Your task to perform on an android device: uninstall "Roku - Official Remote Control" Image 0: 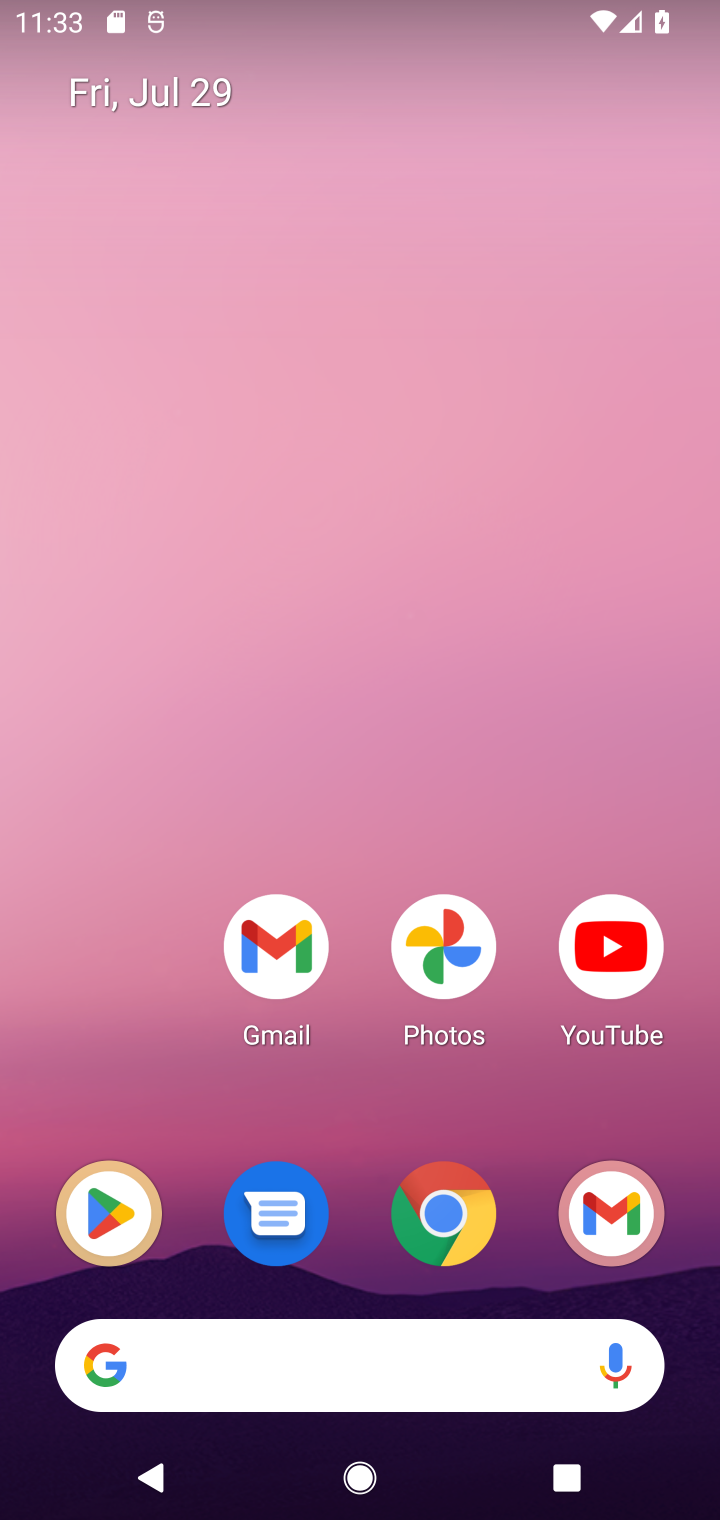
Step 0: press home button
Your task to perform on an android device: uninstall "Roku - Official Remote Control" Image 1: 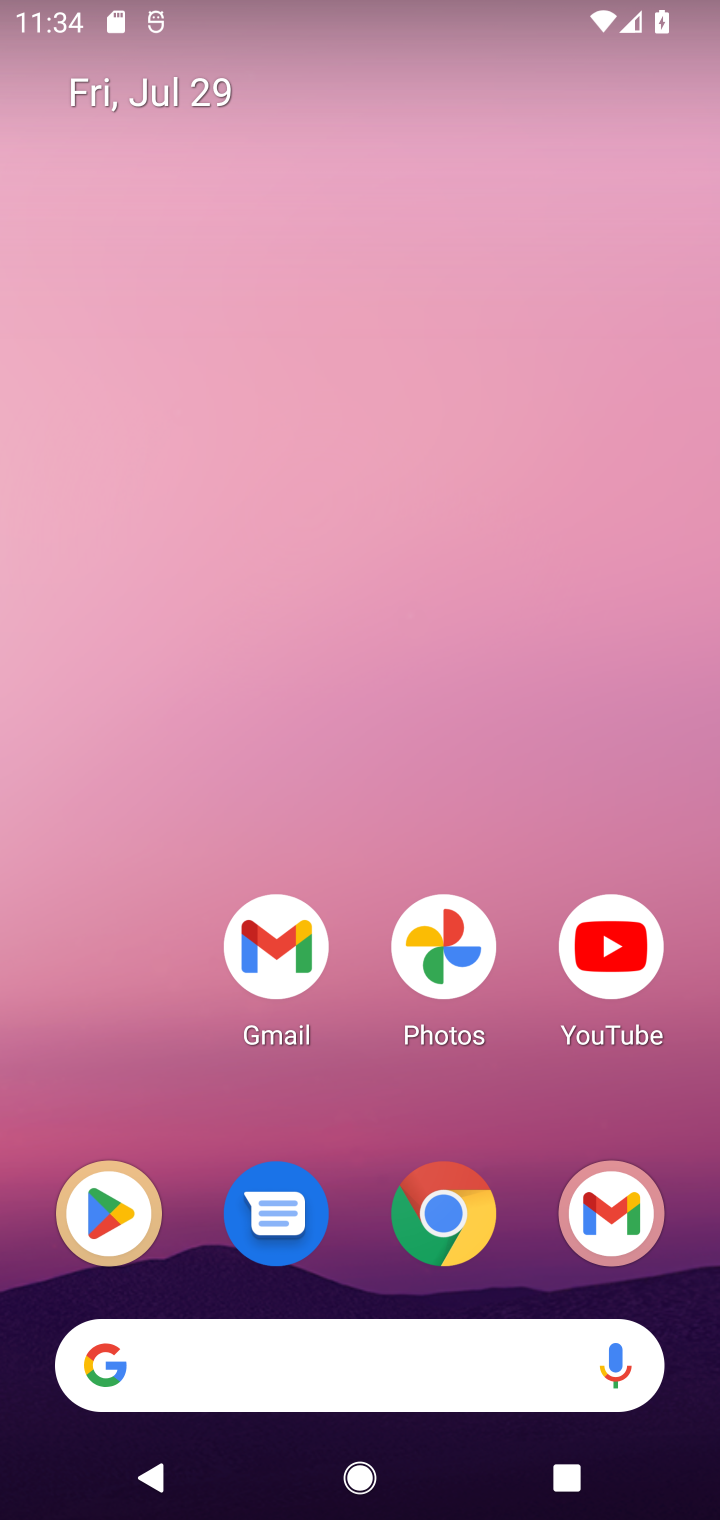
Step 1: drag from (291, 1342) to (286, 145)
Your task to perform on an android device: uninstall "Roku - Official Remote Control" Image 2: 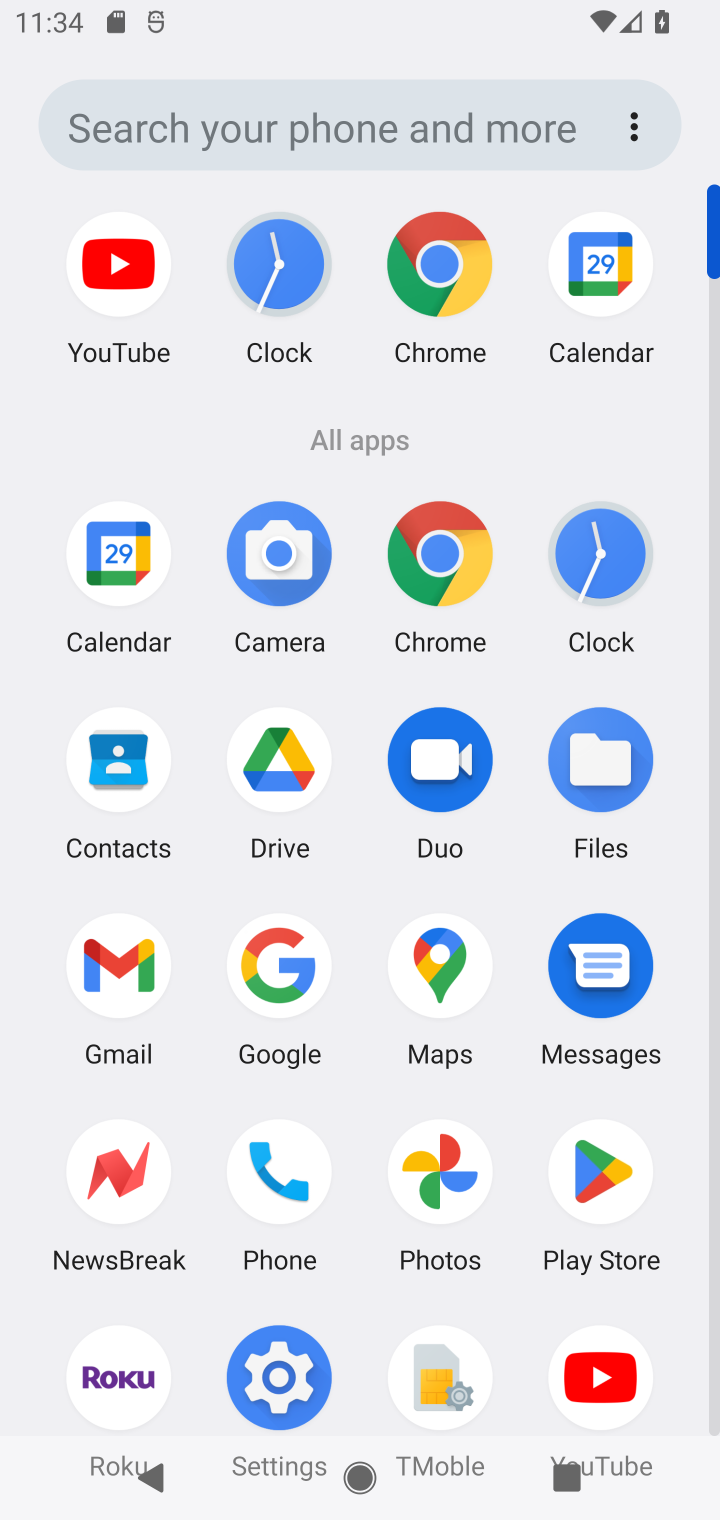
Step 2: click (616, 1147)
Your task to perform on an android device: uninstall "Roku - Official Remote Control" Image 3: 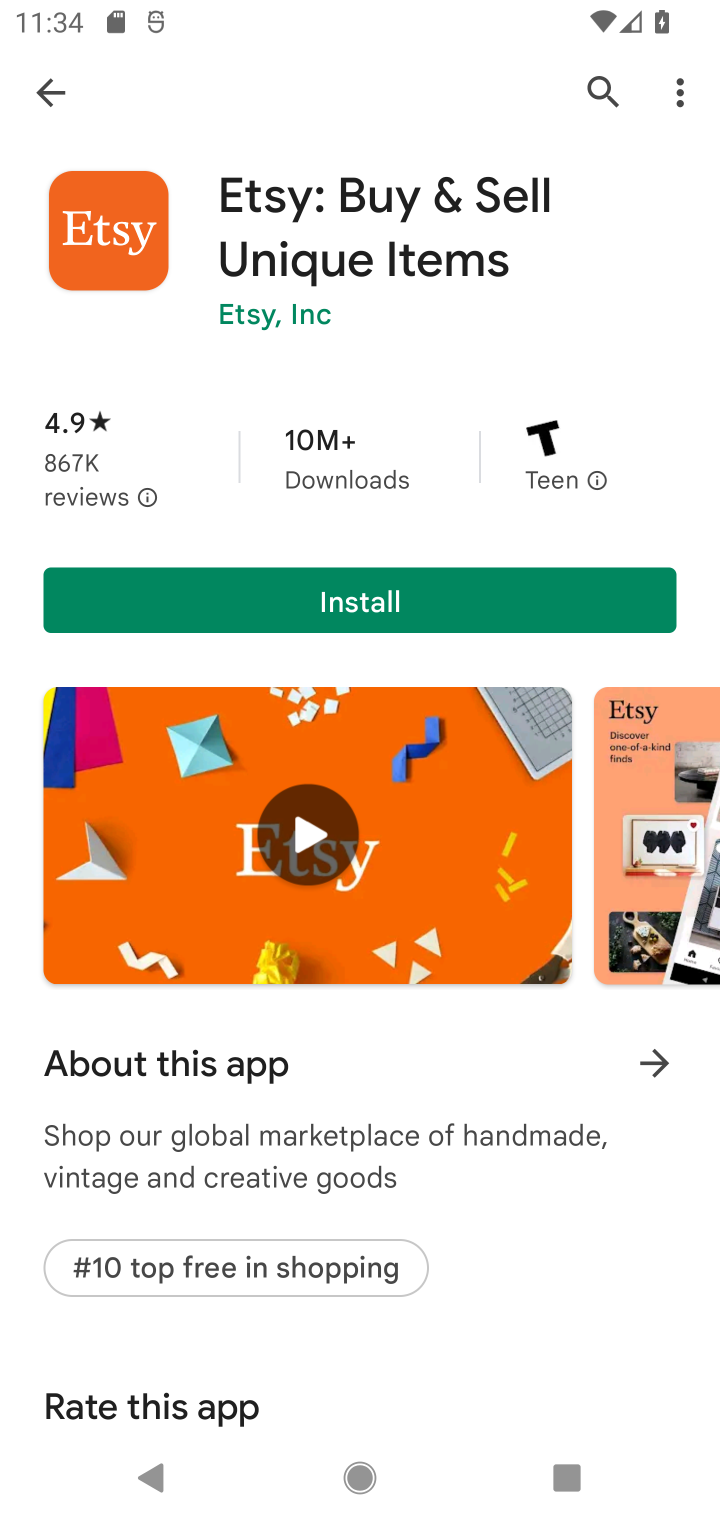
Step 3: click (600, 87)
Your task to perform on an android device: uninstall "Roku - Official Remote Control" Image 4: 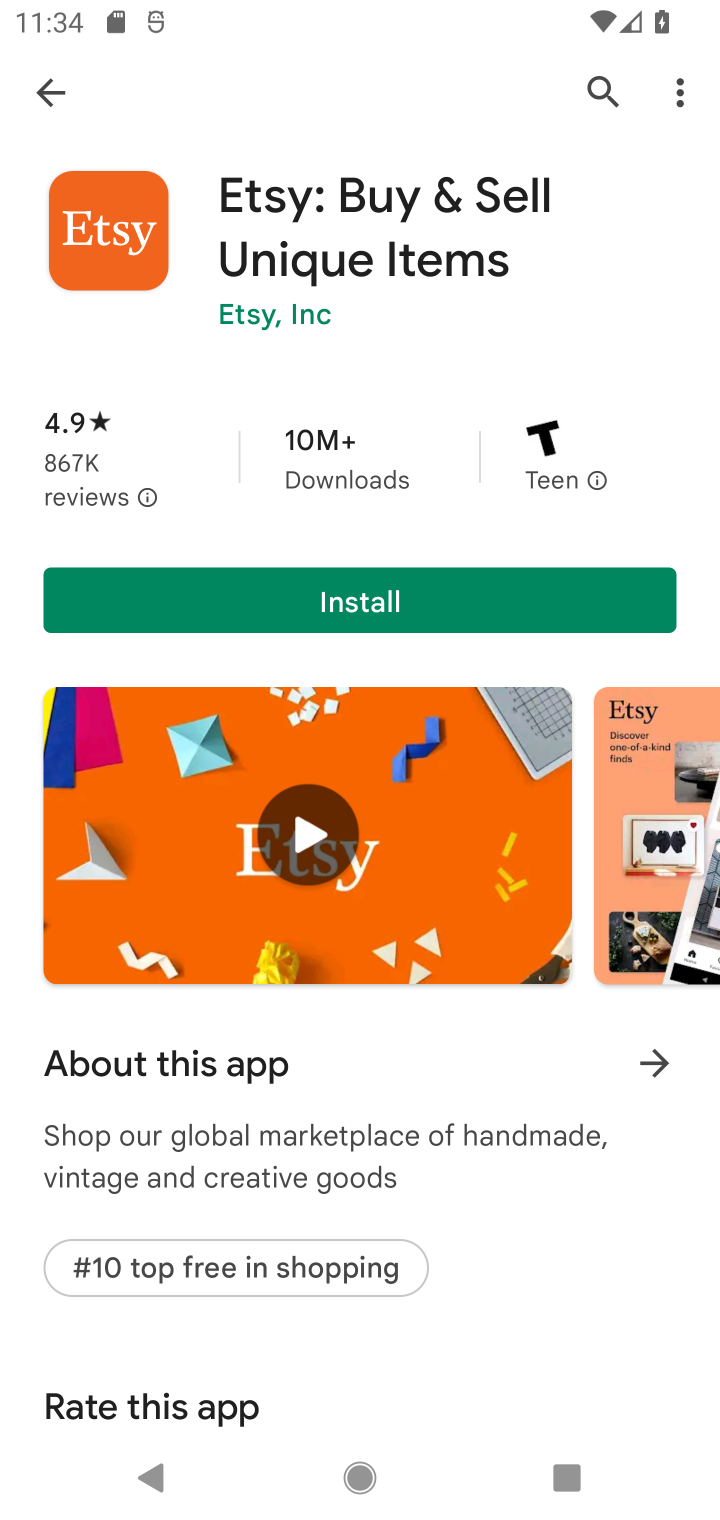
Step 4: click (594, 77)
Your task to perform on an android device: uninstall "Roku - Official Remote Control" Image 5: 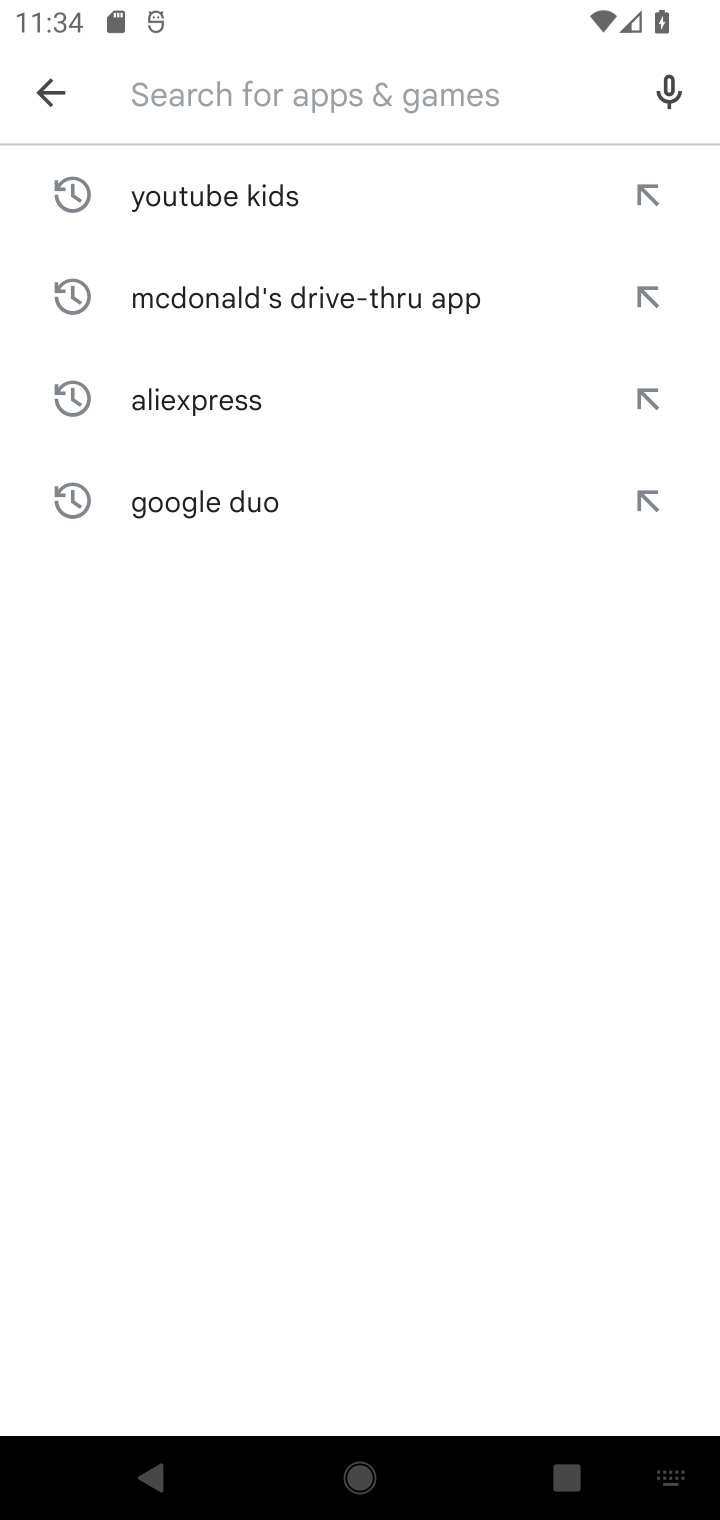
Step 5: type "Roku - Official Remote Control"
Your task to perform on an android device: uninstall "Roku - Official Remote Control" Image 6: 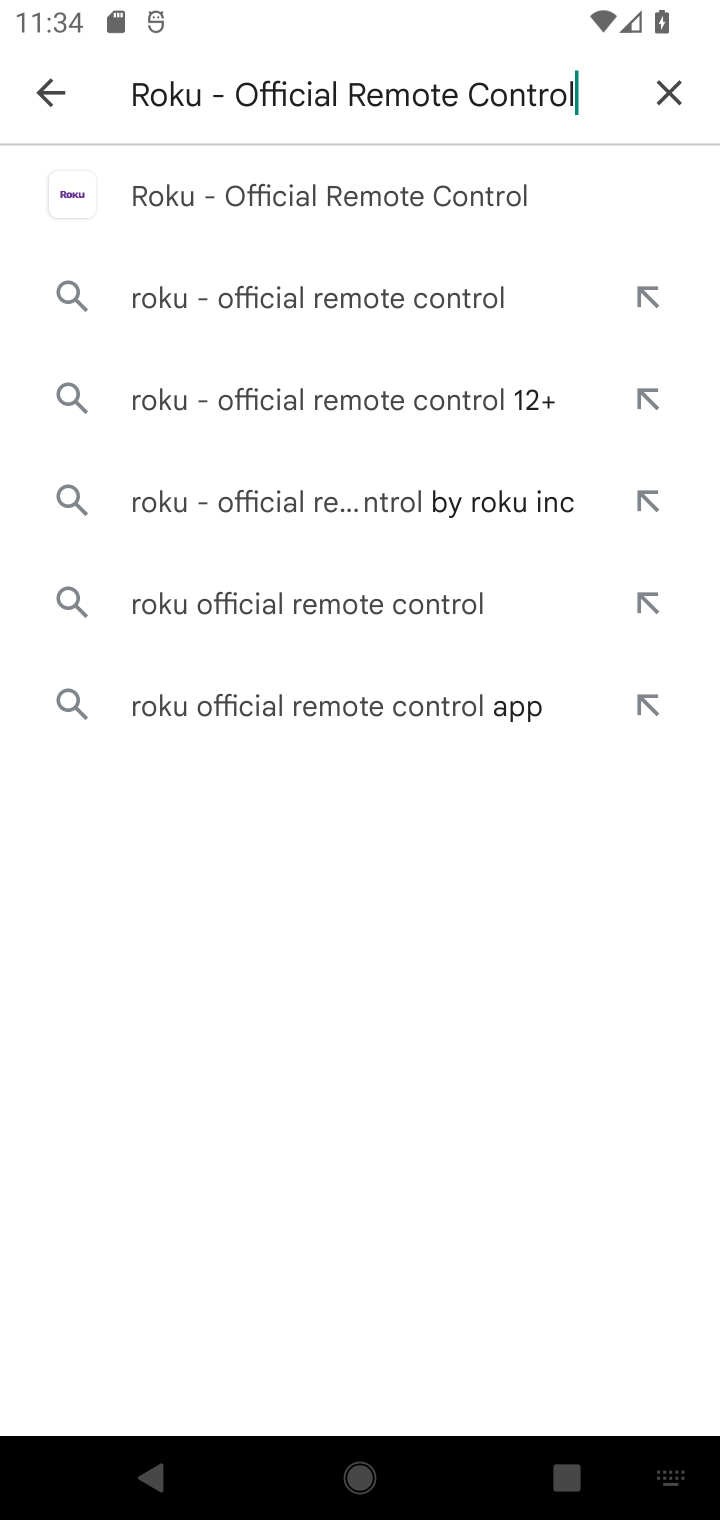
Step 6: click (310, 190)
Your task to perform on an android device: uninstall "Roku - Official Remote Control" Image 7: 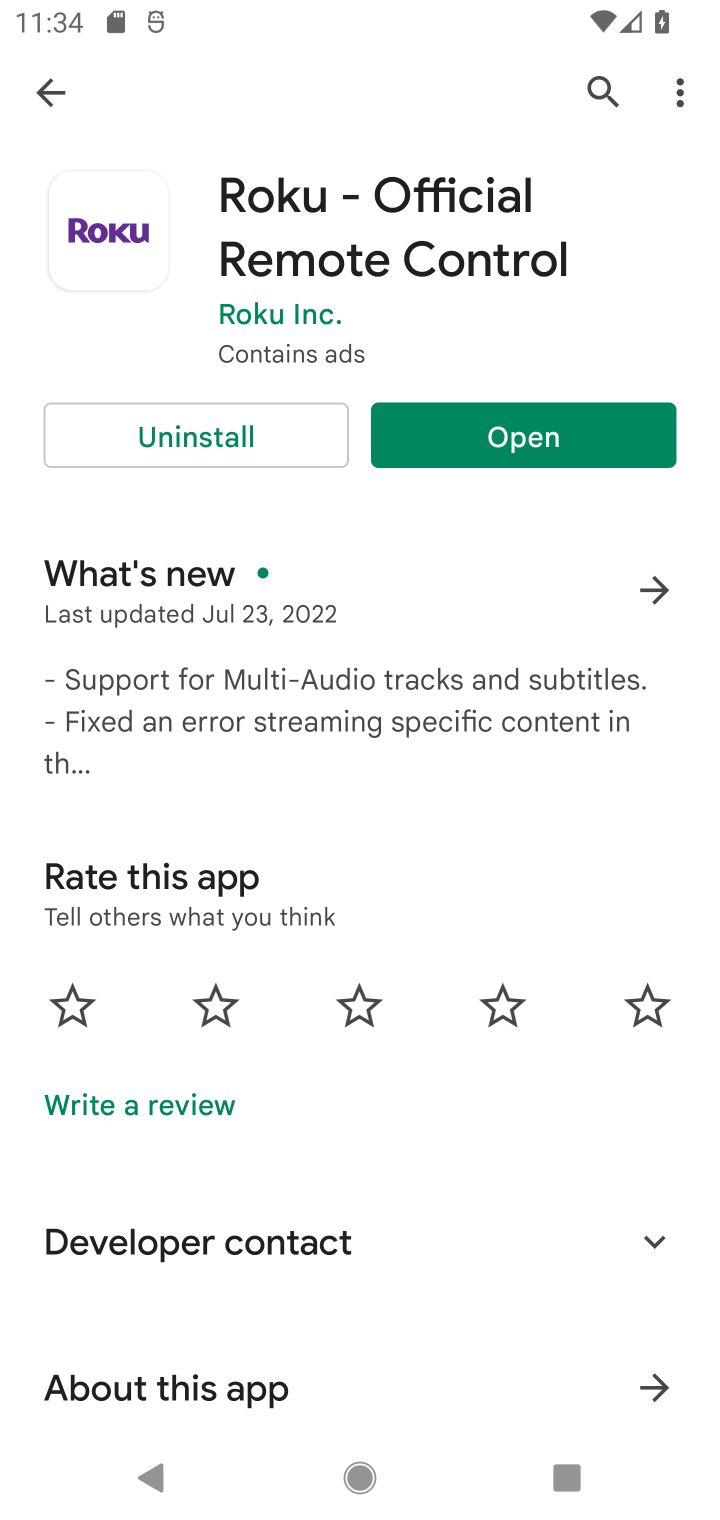
Step 7: click (187, 431)
Your task to perform on an android device: uninstall "Roku - Official Remote Control" Image 8: 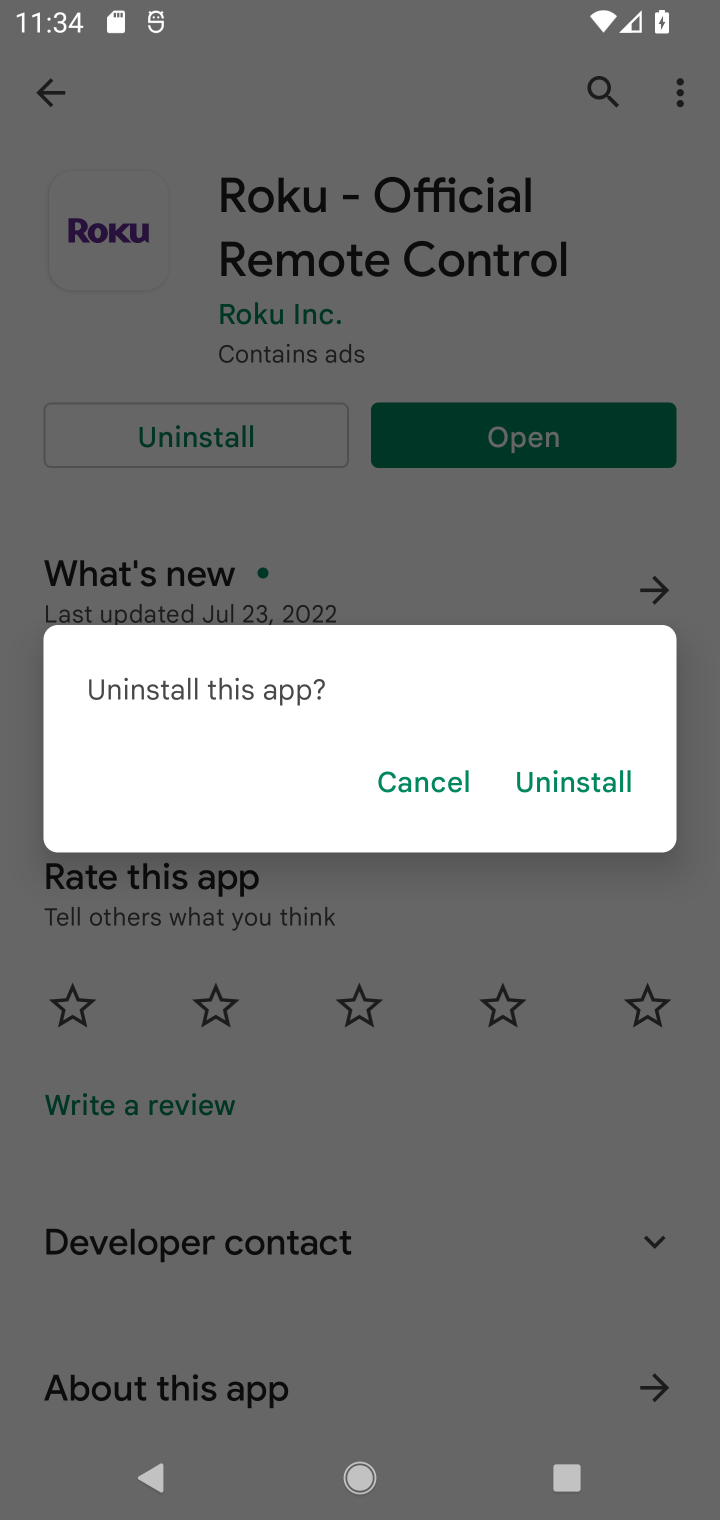
Step 8: click (545, 777)
Your task to perform on an android device: uninstall "Roku - Official Remote Control" Image 9: 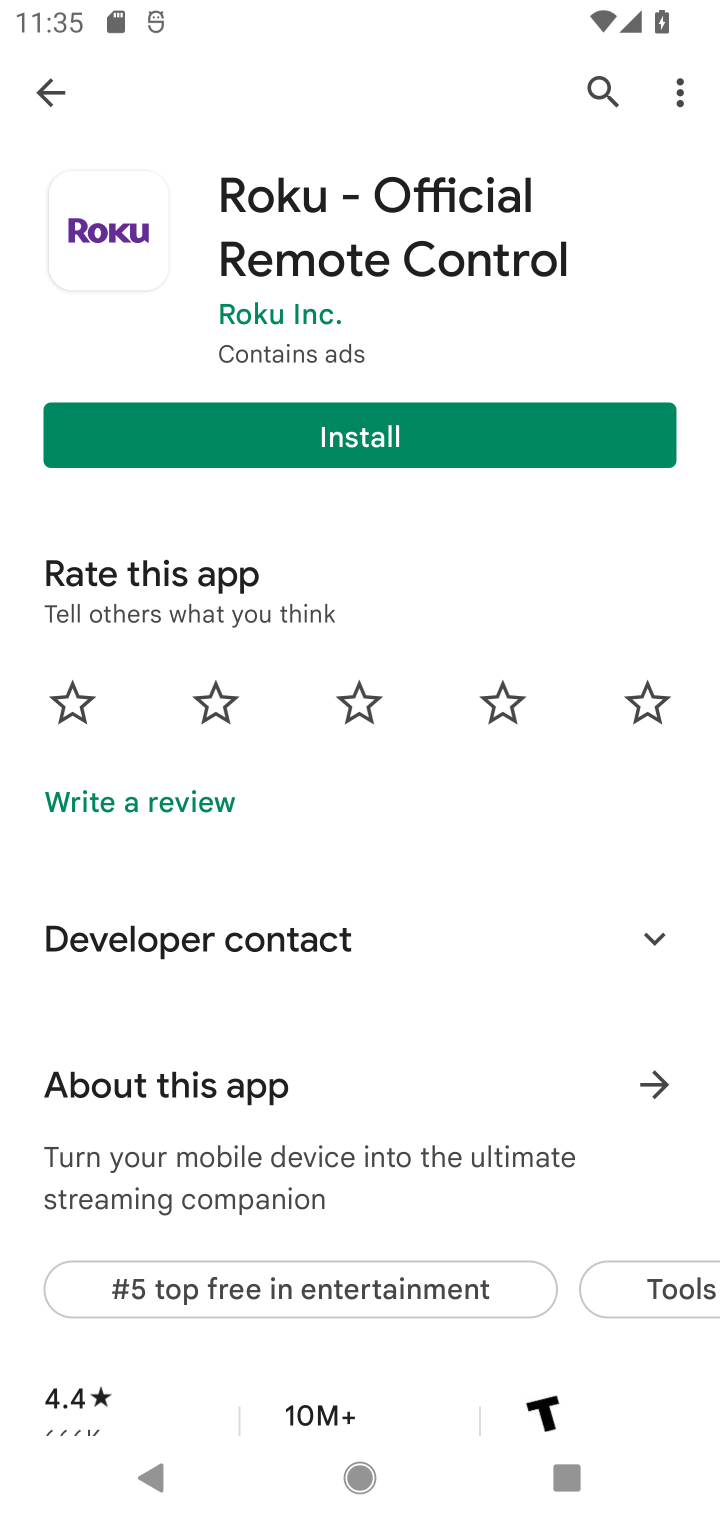
Step 9: task complete